Your task to perform on an android device: When is my next appointment? Image 0: 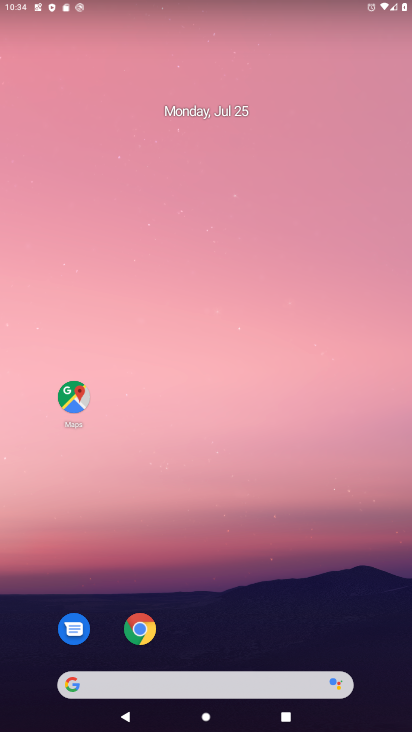
Step 0: drag from (232, 635) to (214, 6)
Your task to perform on an android device: When is my next appointment? Image 1: 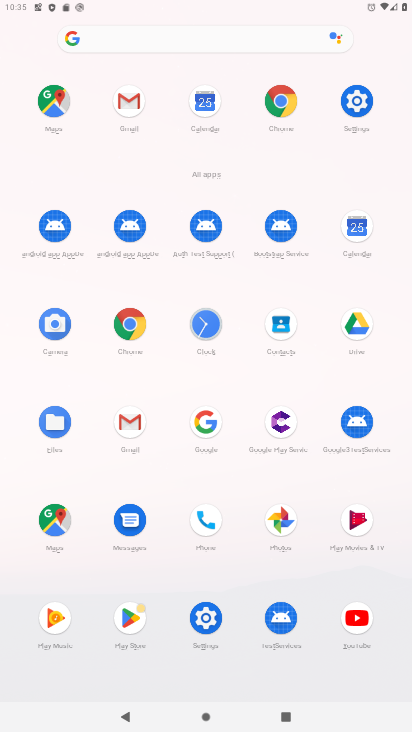
Step 1: click (356, 237)
Your task to perform on an android device: When is my next appointment? Image 2: 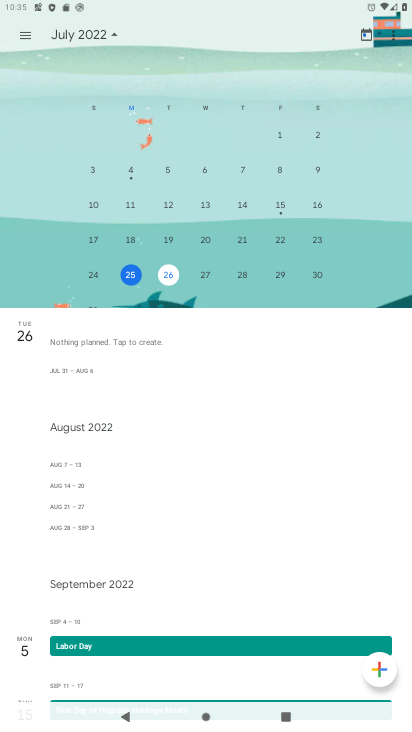
Step 2: click (133, 271)
Your task to perform on an android device: When is my next appointment? Image 3: 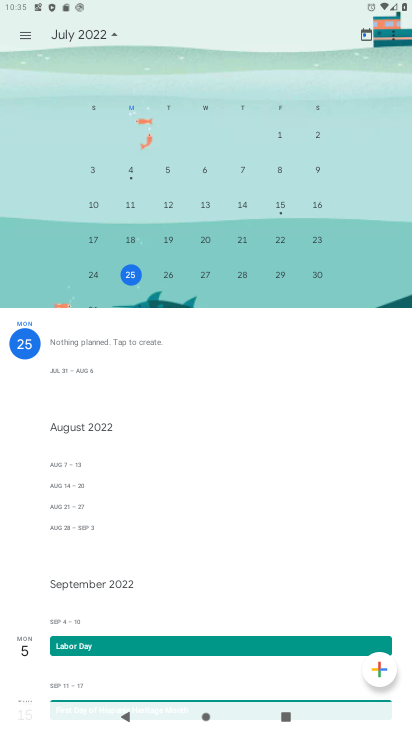
Step 3: task complete